Your task to perform on an android device: Do I have any events tomorrow? Image 0: 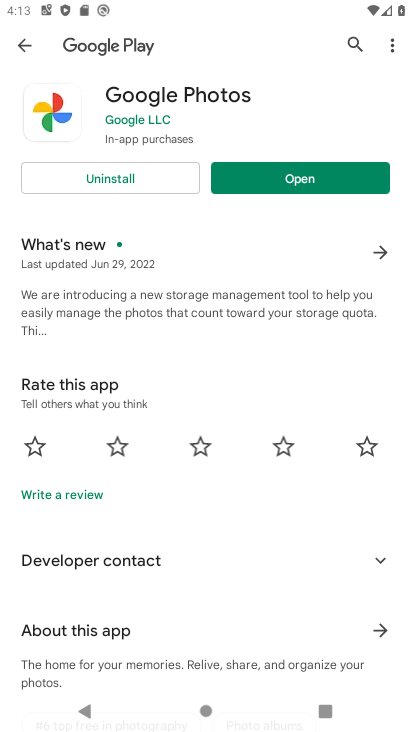
Step 0: press home button
Your task to perform on an android device: Do I have any events tomorrow? Image 1: 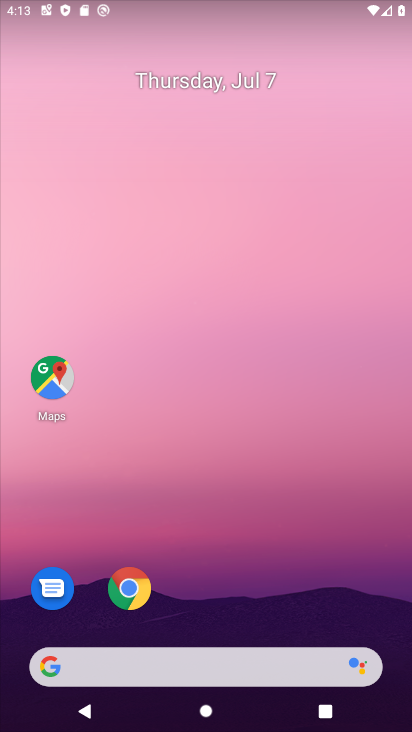
Step 1: drag from (271, 635) to (257, 5)
Your task to perform on an android device: Do I have any events tomorrow? Image 2: 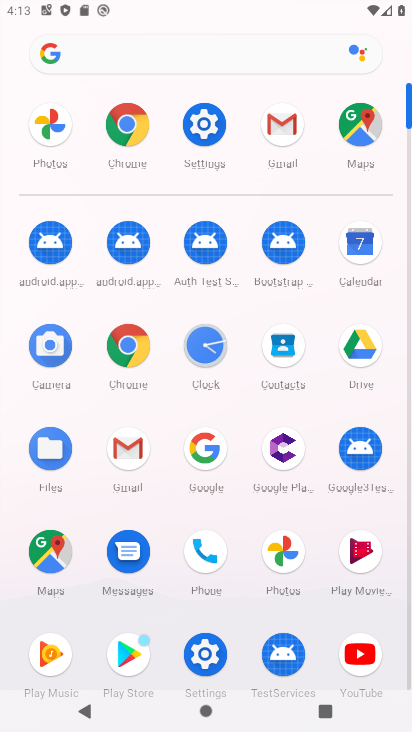
Step 2: click (353, 252)
Your task to perform on an android device: Do I have any events tomorrow? Image 3: 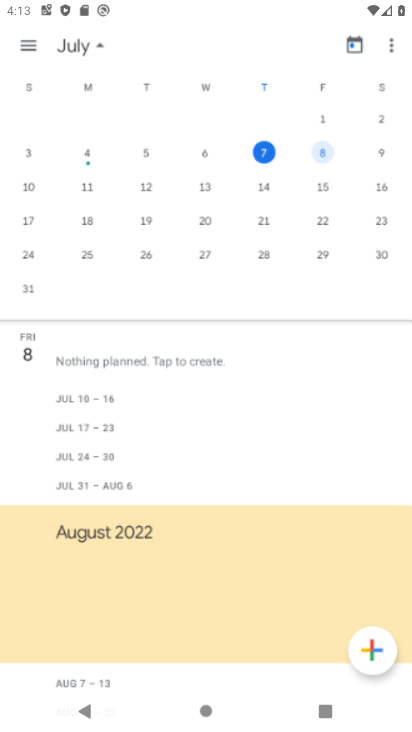
Step 3: click (321, 153)
Your task to perform on an android device: Do I have any events tomorrow? Image 4: 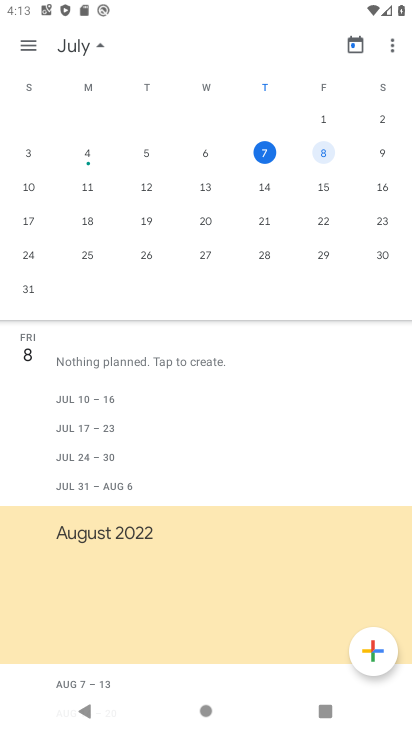
Step 4: task complete